Your task to perform on an android device: move a message to another label in the gmail app Image 0: 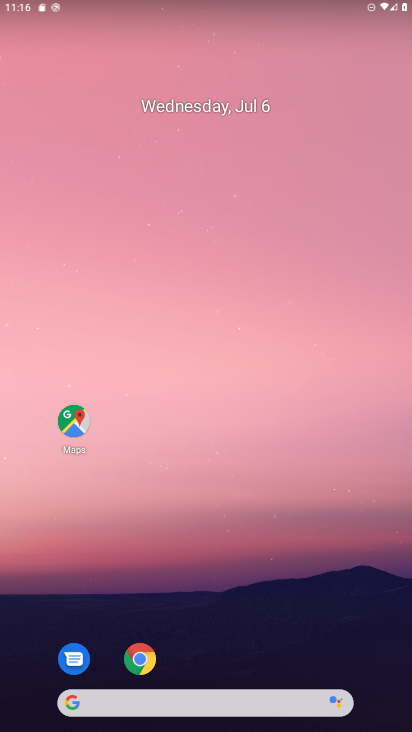
Step 0: drag from (181, 627) to (221, 45)
Your task to perform on an android device: move a message to another label in the gmail app Image 1: 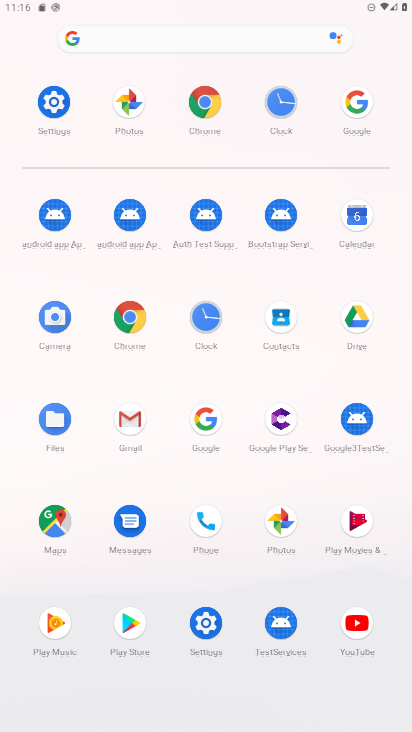
Step 1: click (135, 419)
Your task to perform on an android device: move a message to another label in the gmail app Image 2: 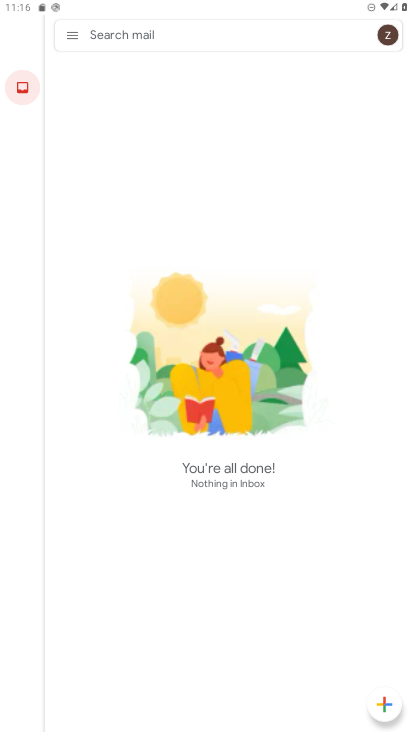
Step 2: click (69, 38)
Your task to perform on an android device: move a message to another label in the gmail app Image 3: 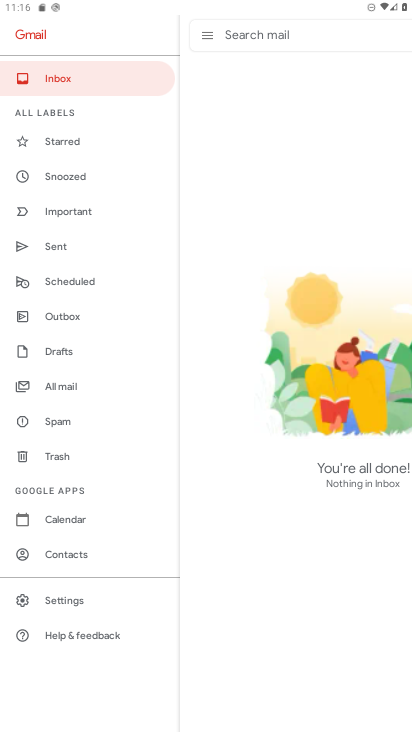
Step 3: click (99, 390)
Your task to perform on an android device: move a message to another label in the gmail app Image 4: 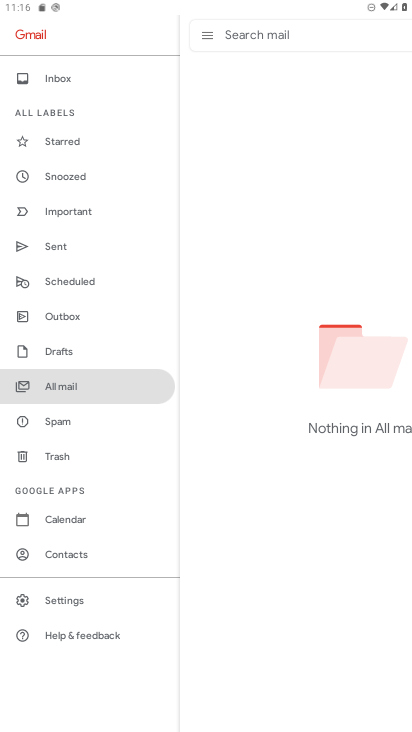
Step 4: click (250, 393)
Your task to perform on an android device: move a message to another label in the gmail app Image 5: 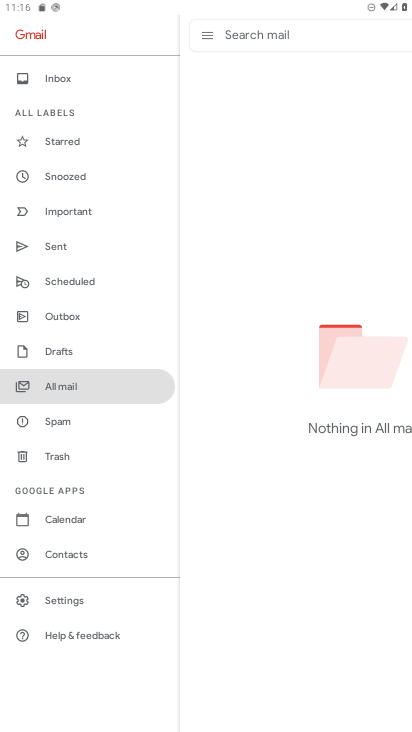
Step 5: task complete